Your task to perform on an android device: What is the news today? Image 0: 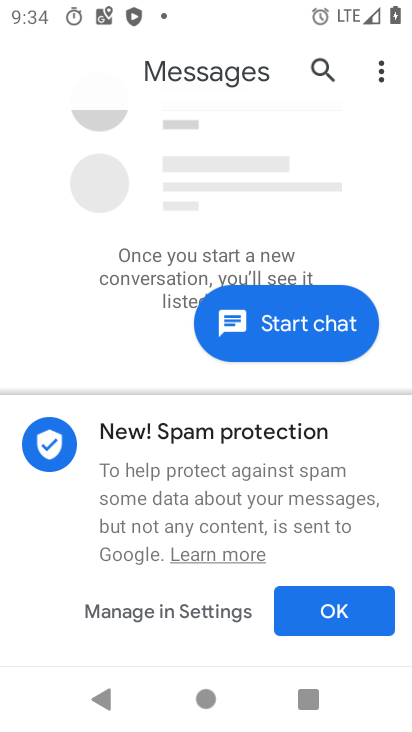
Step 0: press home button
Your task to perform on an android device: What is the news today? Image 1: 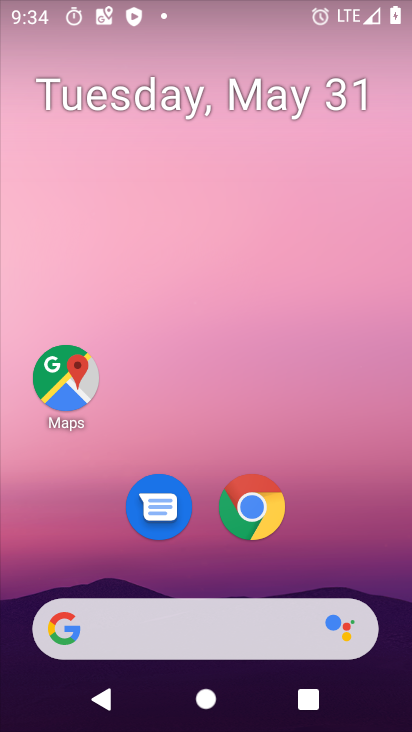
Step 1: click (169, 627)
Your task to perform on an android device: What is the news today? Image 2: 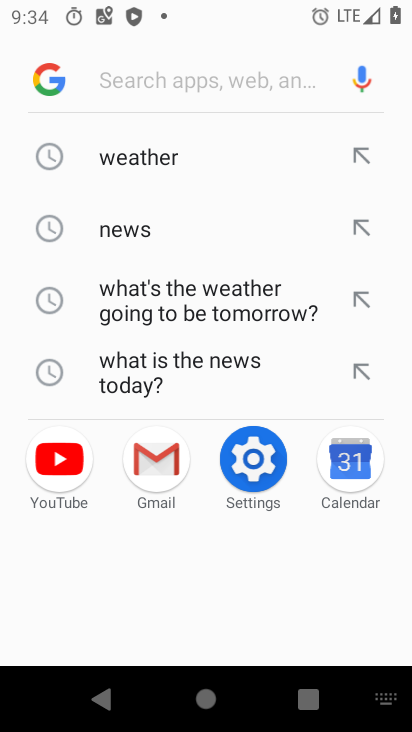
Step 2: click (113, 230)
Your task to perform on an android device: What is the news today? Image 3: 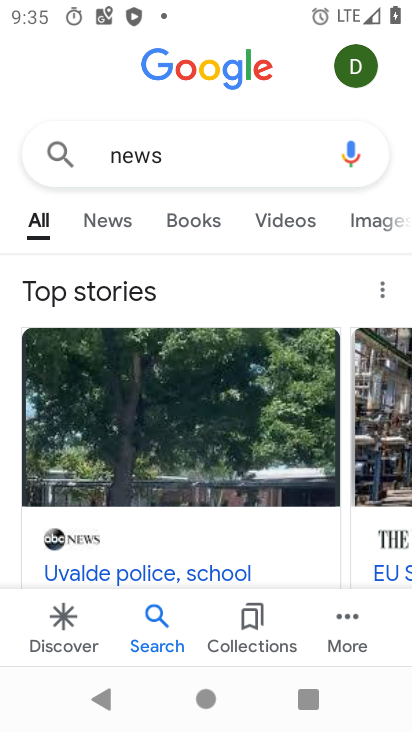
Step 3: task complete